Your task to perform on an android device: Go to Google Image 0: 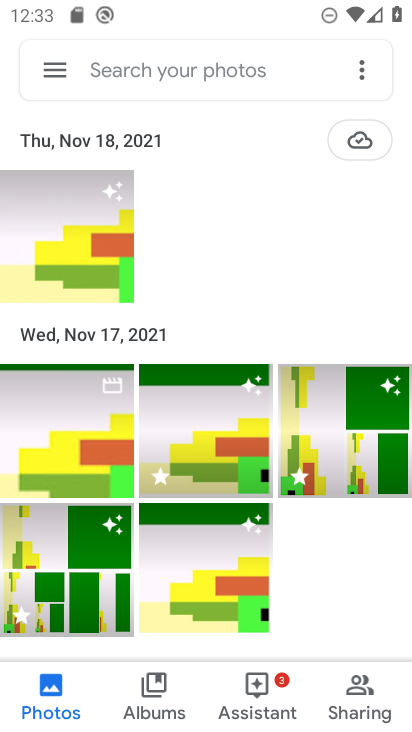
Step 0: press home button
Your task to perform on an android device: Go to Google Image 1: 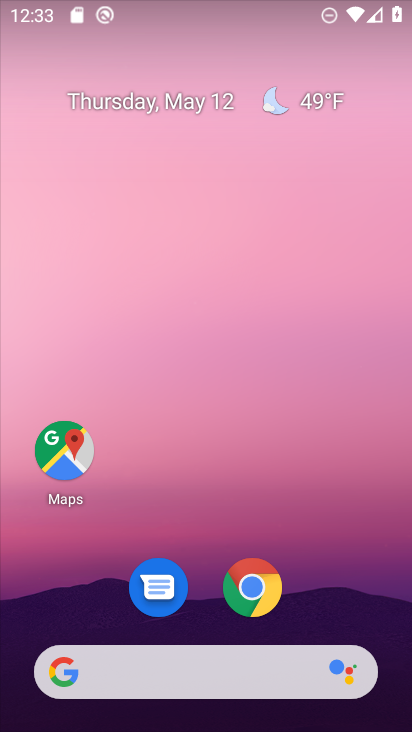
Step 1: drag from (248, 605) to (288, 366)
Your task to perform on an android device: Go to Google Image 2: 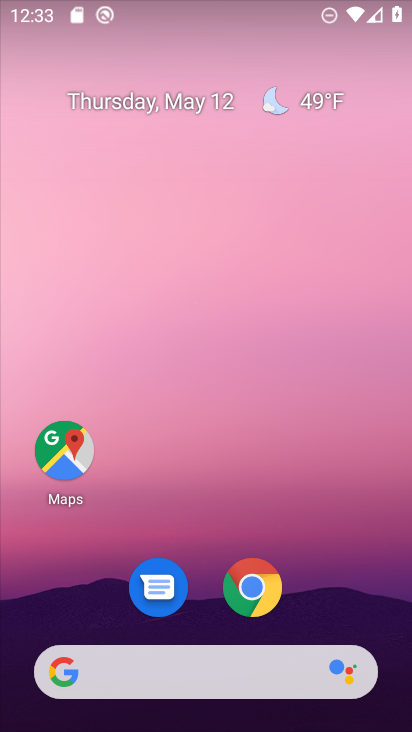
Step 2: drag from (204, 639) to (234, 253)
Your task to perform on an android device: Go to Google Image 3: 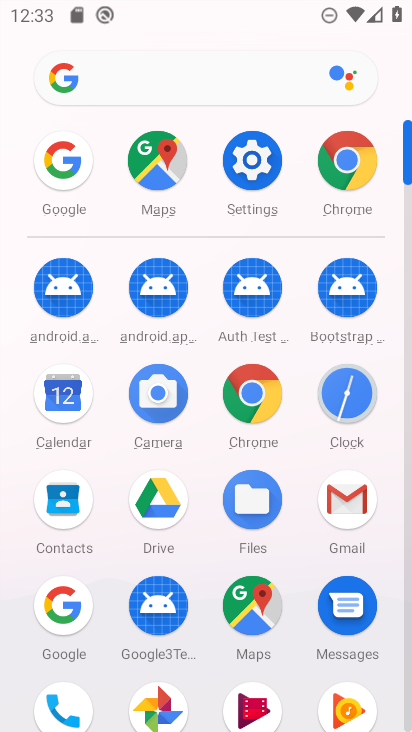
Step 3: click (74, 608)
Your task to perform on an android device: Go to Google Image 4: 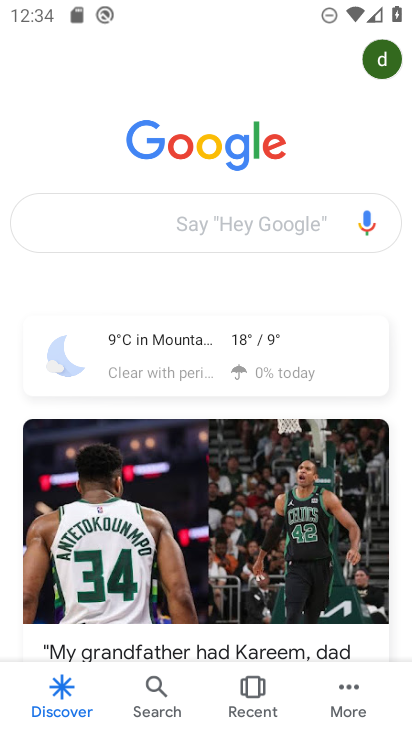
Step 4: task complete